Your task to perform on an android device: Find coffee shops on Maps Image 0: 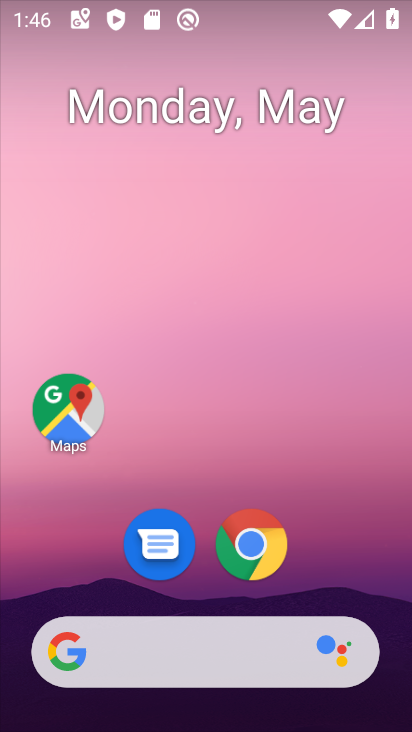
Step 0: drag from (371, 578) to (376, 179)
Your task to perform on an android device: Find coffee shops on Maps Image 1: 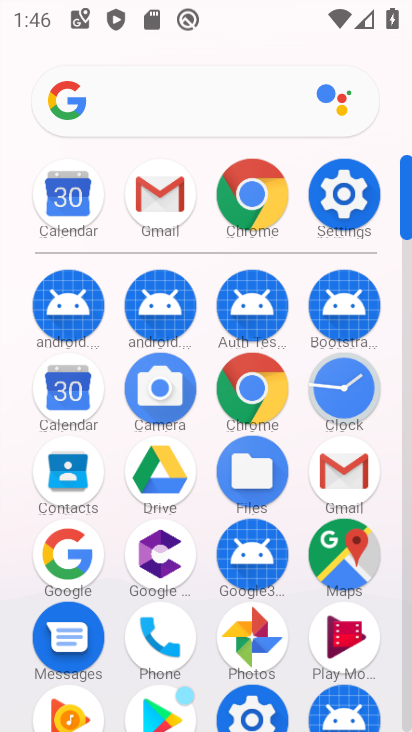
Step 1: click (323, 563)
Your task to perform on an android device: Find coffee shops on Maps Image 2: 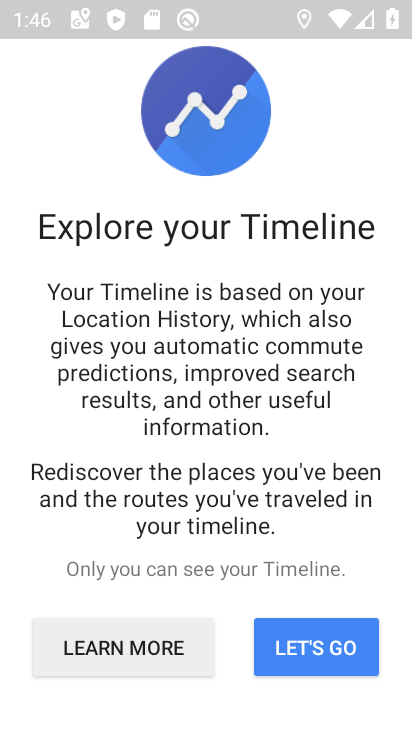
Step 2: click (289, 654)
Your task to perform on an android device: Find coffee shops on Maps Image 3: 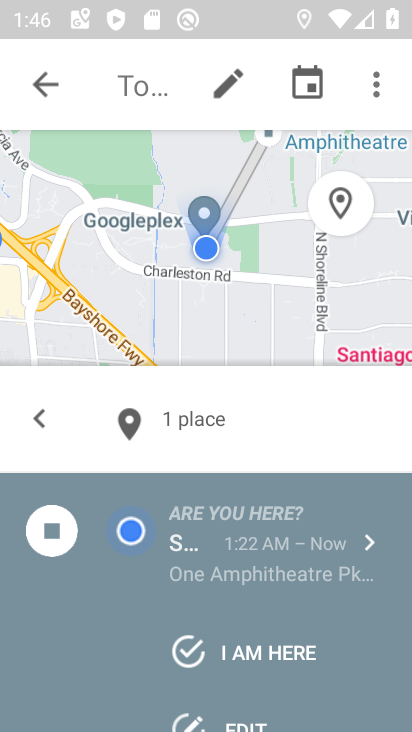
Step 3: click (64, 72)
Your task to perform on an android device: Find coffee shops on Maps Image 4: 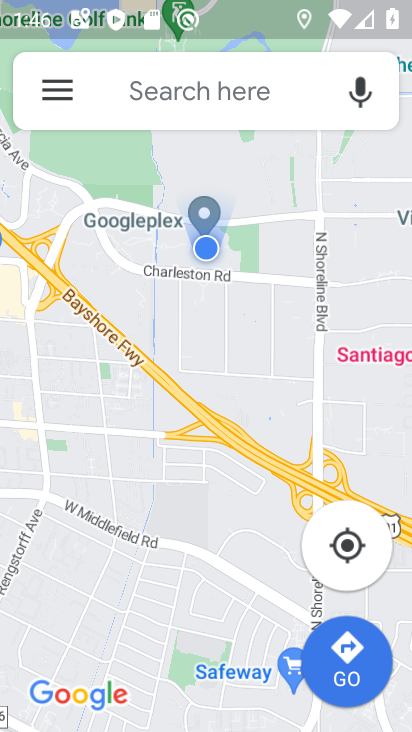
Step 4: click (187, 96)
Your task to perform on an android device: Find coffee shops on Maps Image 5: 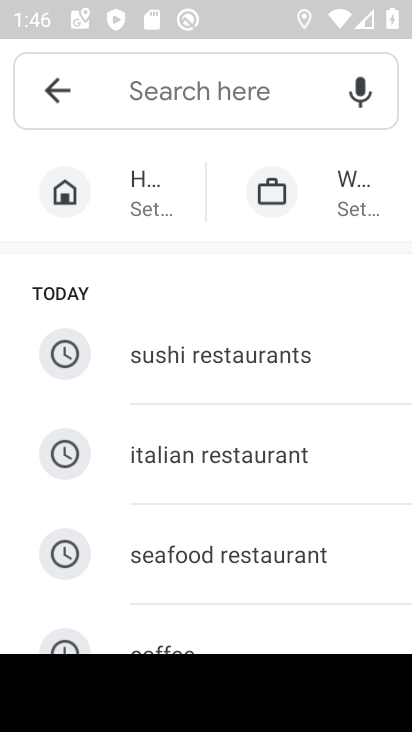
Step 5: type "coffee"
Your task to perform on an android device: Find coffee shops on Maps Image 6: 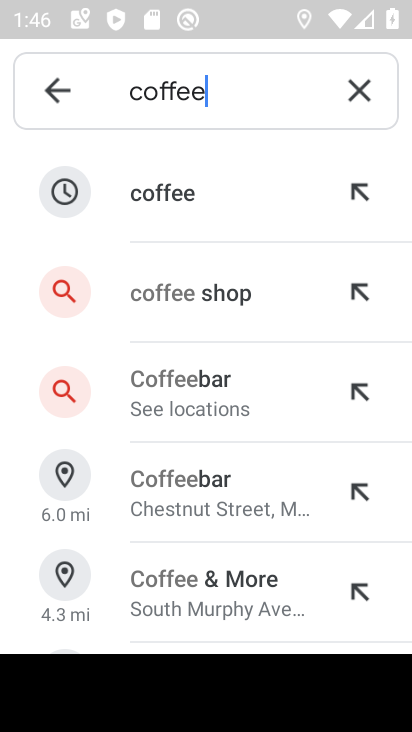
Step 6: click (209, 199)
Your task to perform on an android device: Find coffee shops on Maps Image 7: 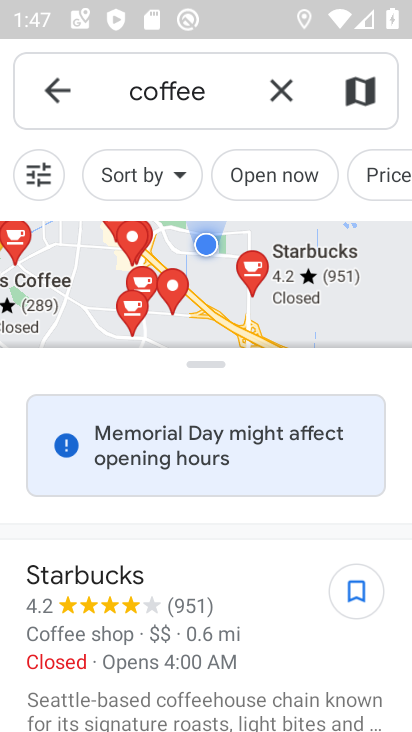
Step 7: task complete